Your task to perform on an android device: turn vacation reply on in the gmail app Image 0: 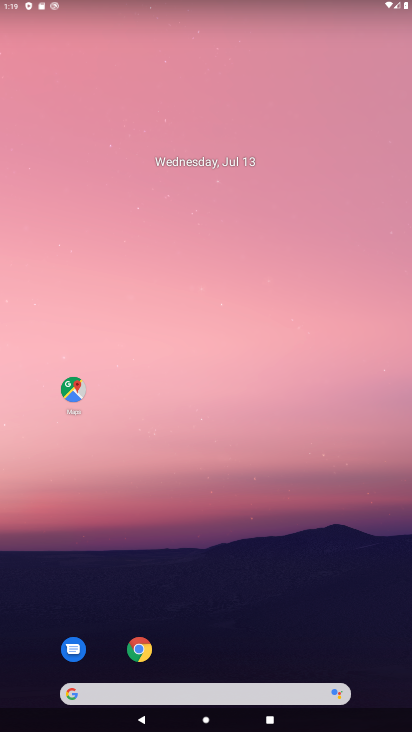
Step 0: drag from (180, 651) to (280, 75)
Your task to perform on an android device: turn vacation reply on in the gmail app Image 1: 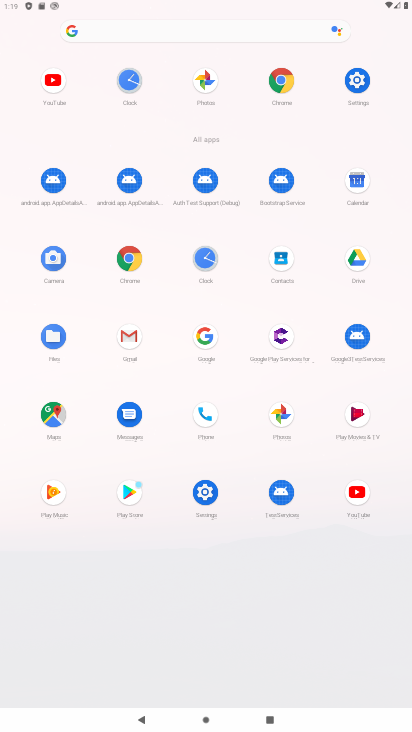
Step 1: click (131, 344)
Your task to perform on an android device: turn vacation reply on in the gmail app Image 2: 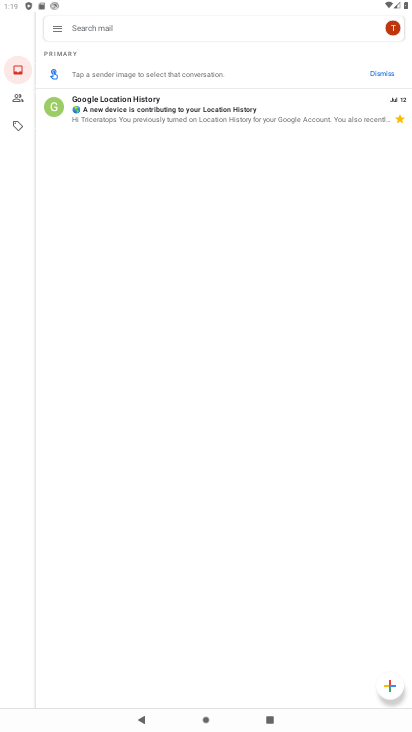
Step 2: click (60, 30)
Your task to perform on an android device: turn vacation reply on in the gmail app Image 3: 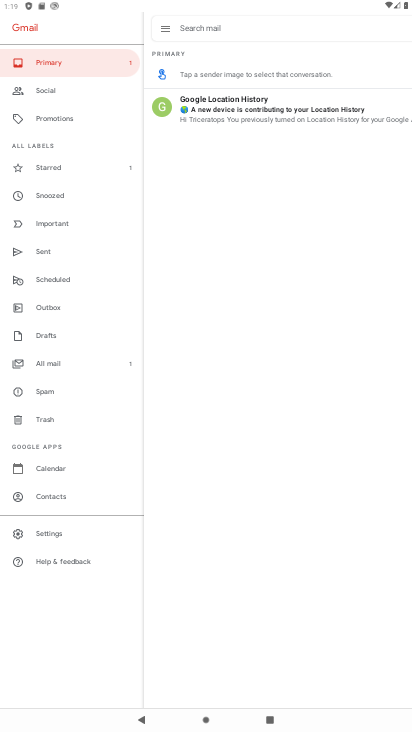
Step 3: click (59, 536)
Your task to perform on an android device: turn vacation reply on in the gmail app Image 4: 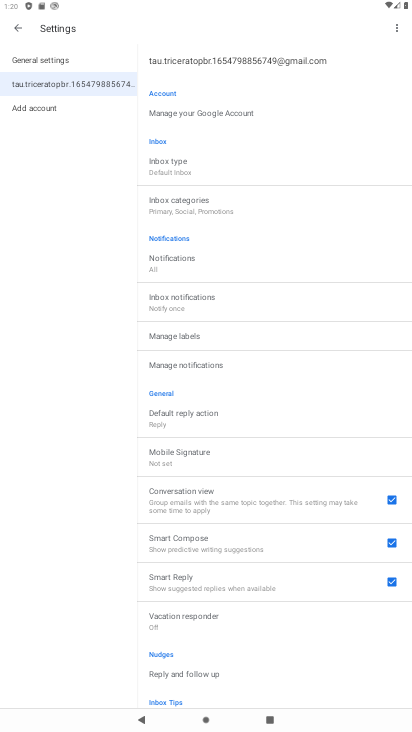
Step 4: click (206, 563)
Your task to perform on an android device: turn vacation reply on in the gmail app Image 5: 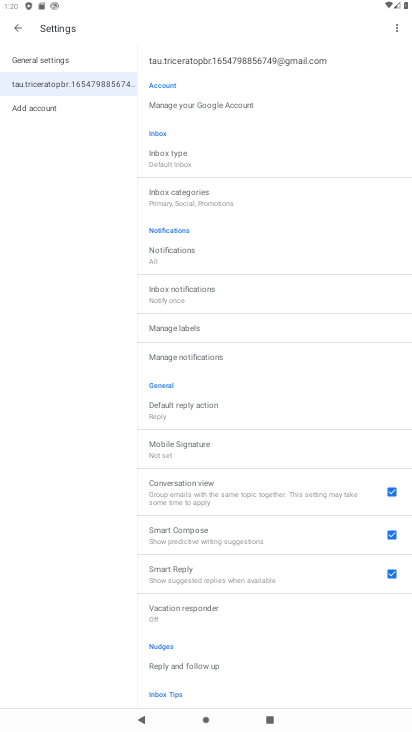
Step 5: click (227, 617)
Your task to perform on an android device: turn vacation reply on in the gmail app Image 6: 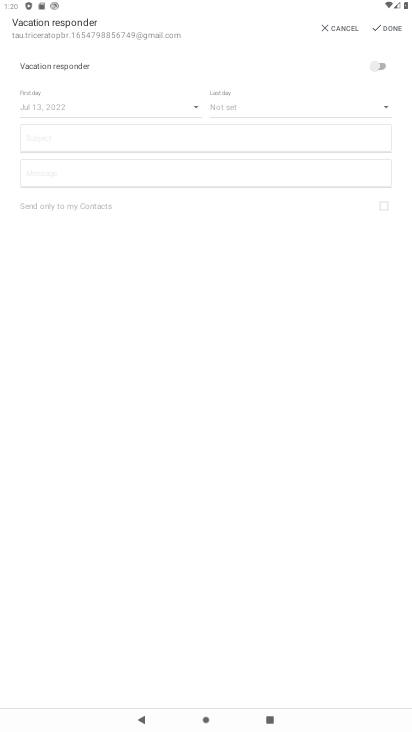
Step 6: click (392, 62)
Your task to perform on an android device: turn vacation reply on in the gmail app Image 7: 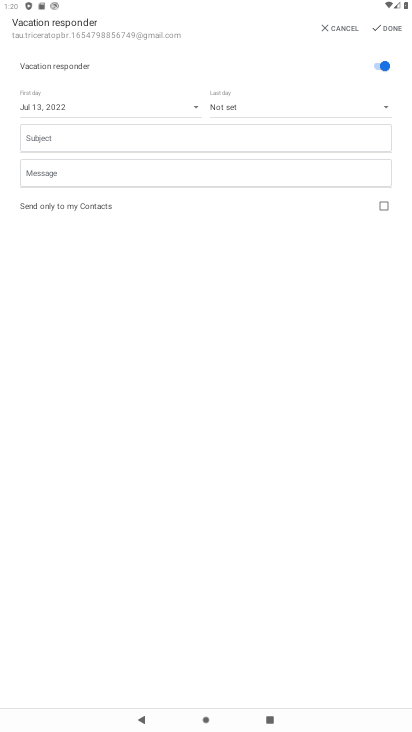
Step 7: click (232, 108)
Your task to perform on an android device: turn vacation reply on in the gmail app Image 8: 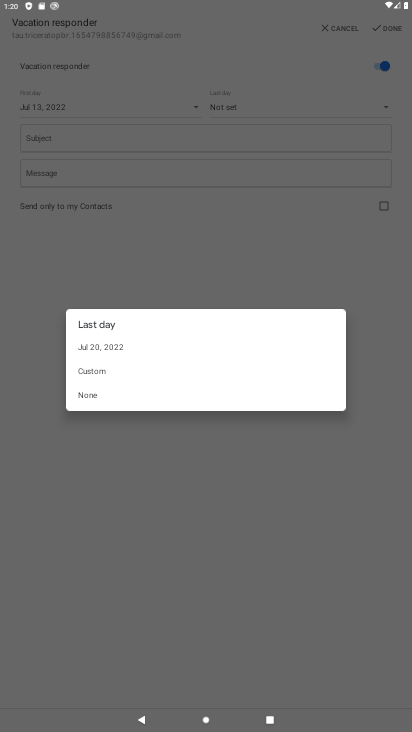
Step 8: click (150, 354)
Your task to perform on an android device: turn vacation reply on in the gmail app Image 9: 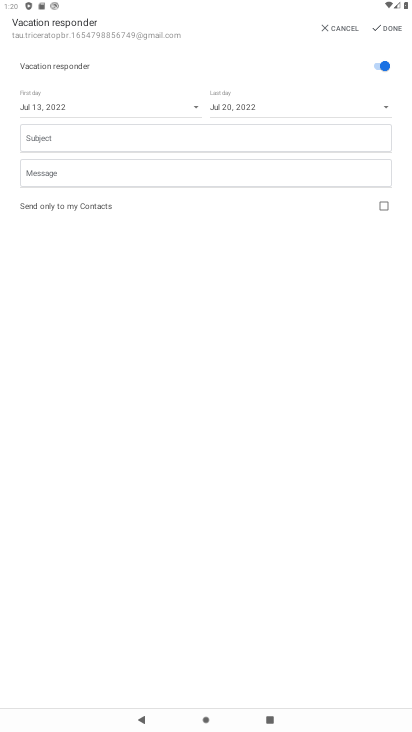
Step 9: click (89, 138)
Your task to perform on an android device: turn vacation reply on in the gmail app Image 10: 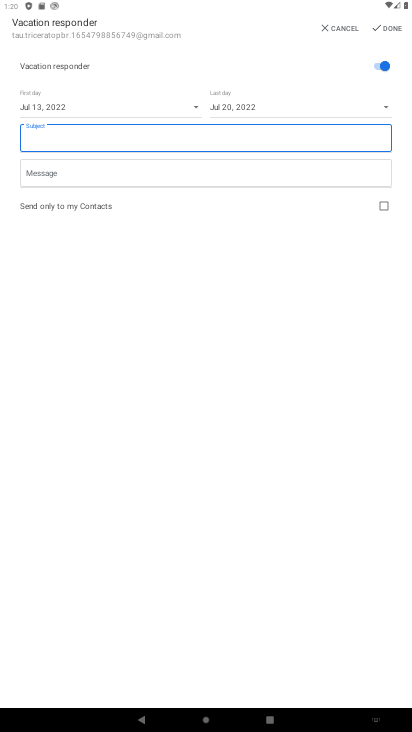
Step 10: type "imp "
Your task to perform on an android device: turn vacation reply on in the gmail app Image 11: 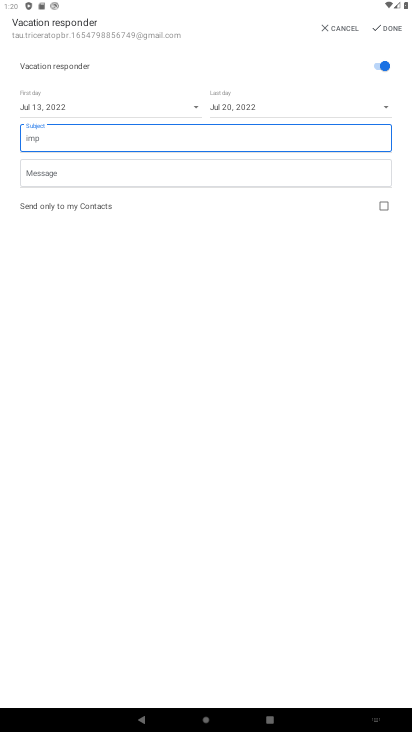
Step 11: click (153, 183)
Your task to perform on an android device: turn vacation reply on in the gmail app Image 12: 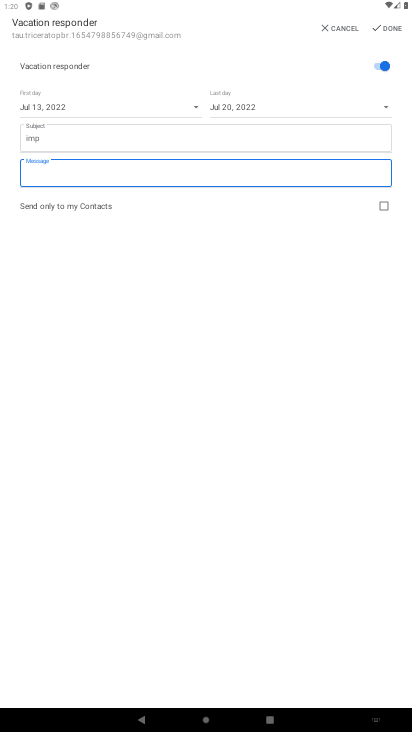
Step 12: type "dnd"
Your task to perform on an android device: turn vacation reply on in the gmail app Image 13: 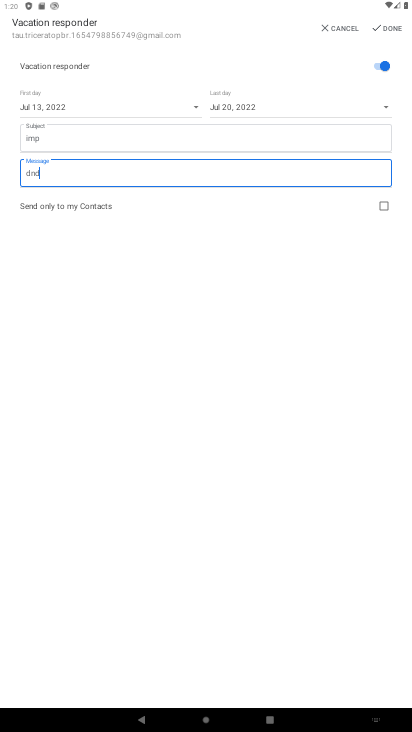
Step 13: click (391, 28)
Your task to perform on an android device: turn vacation reply on in the gmail app Image 14: 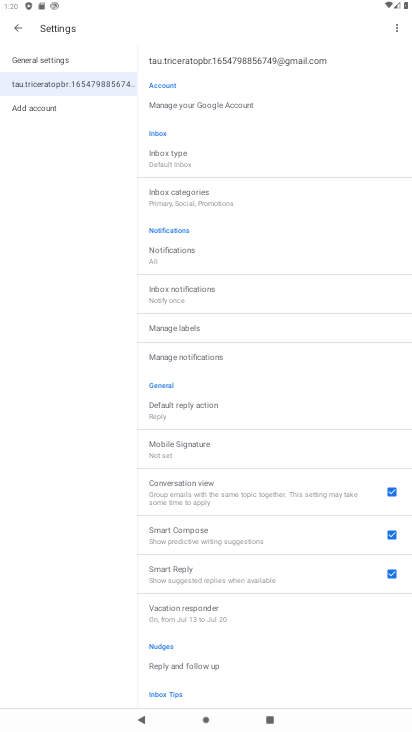
Step 14: task complete